Your task to perform on an android device: Open Google Chrome and click the shortcut for Amazon.com Image 0: 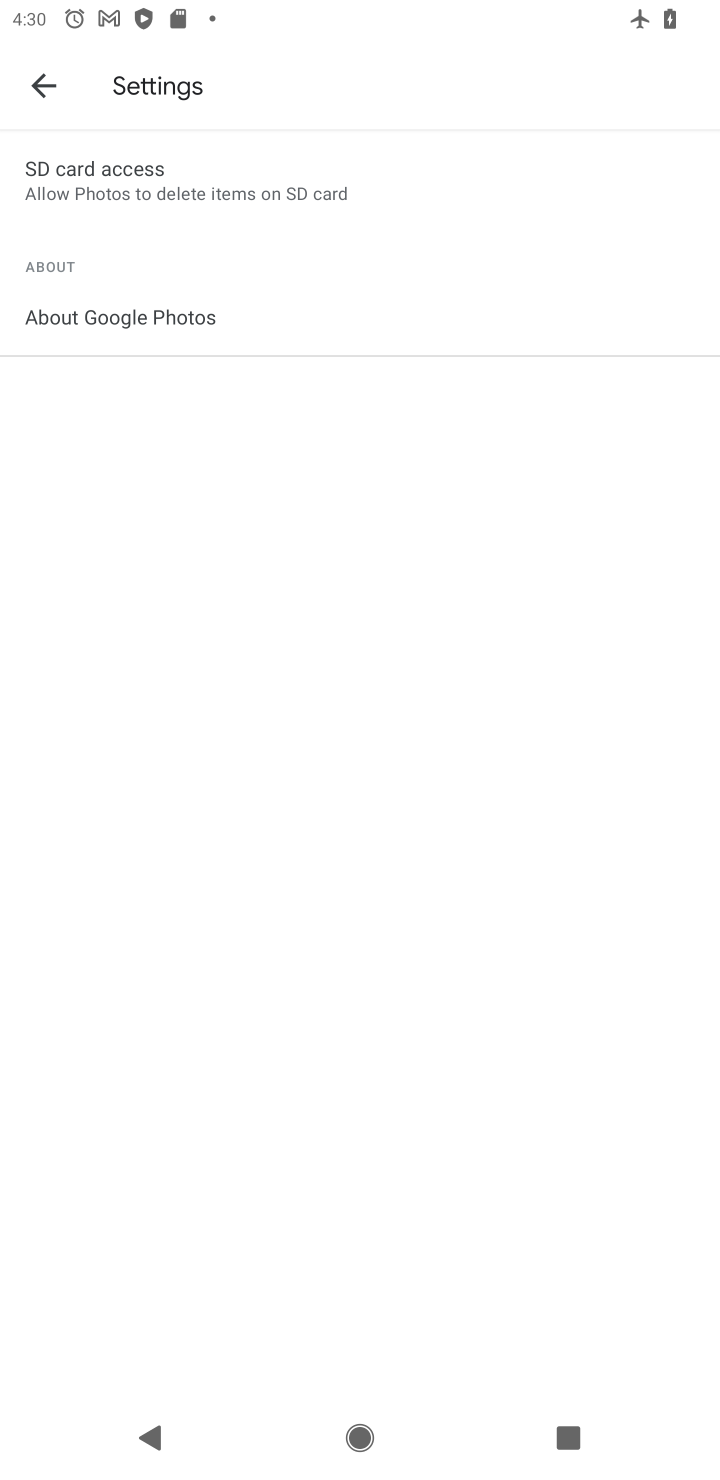
Step 0: press home button
Your task to perform on an android device: Open Google Chrome and click the shortcut for Amazon.com Image 1: 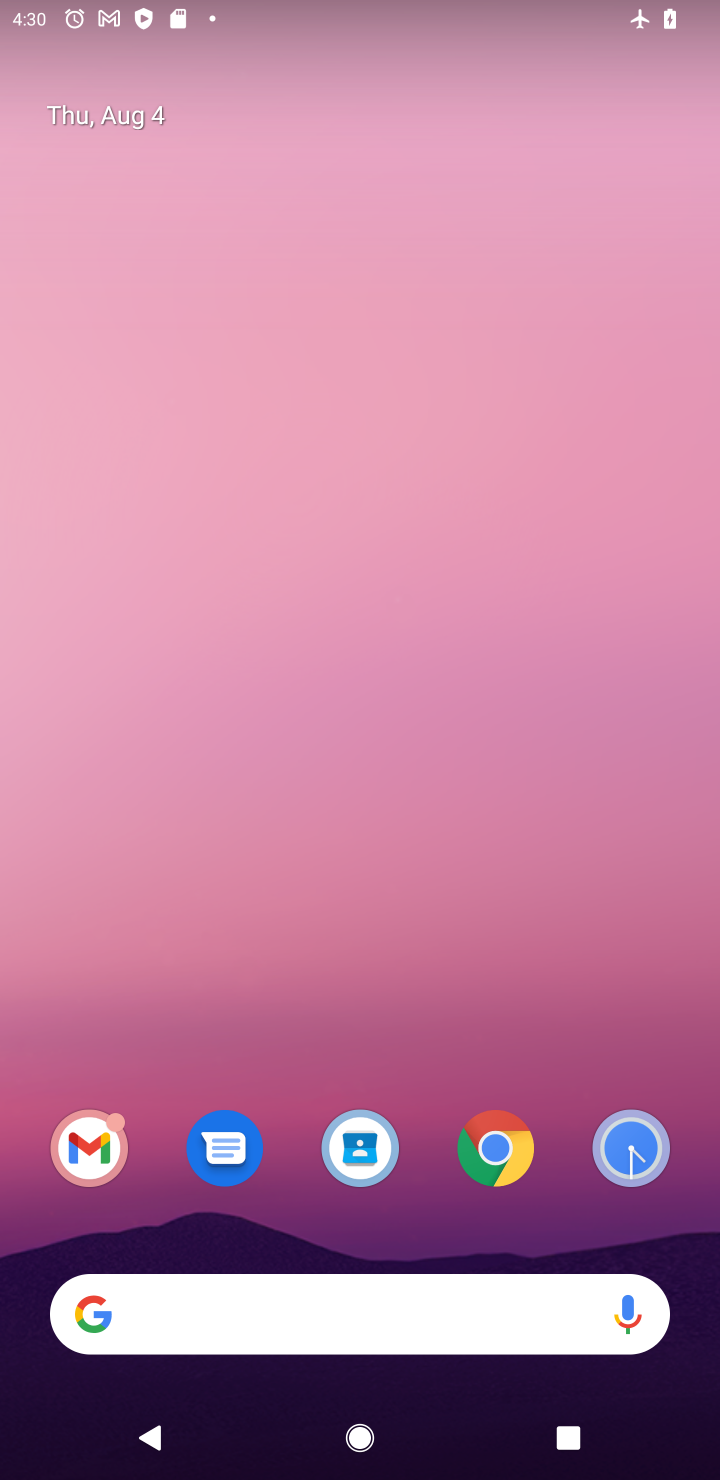
Step 1: click (492, 1146)
Your task to perform on an android device: Open Google Chrome and click the shortcut for Amazon.com Image 2: 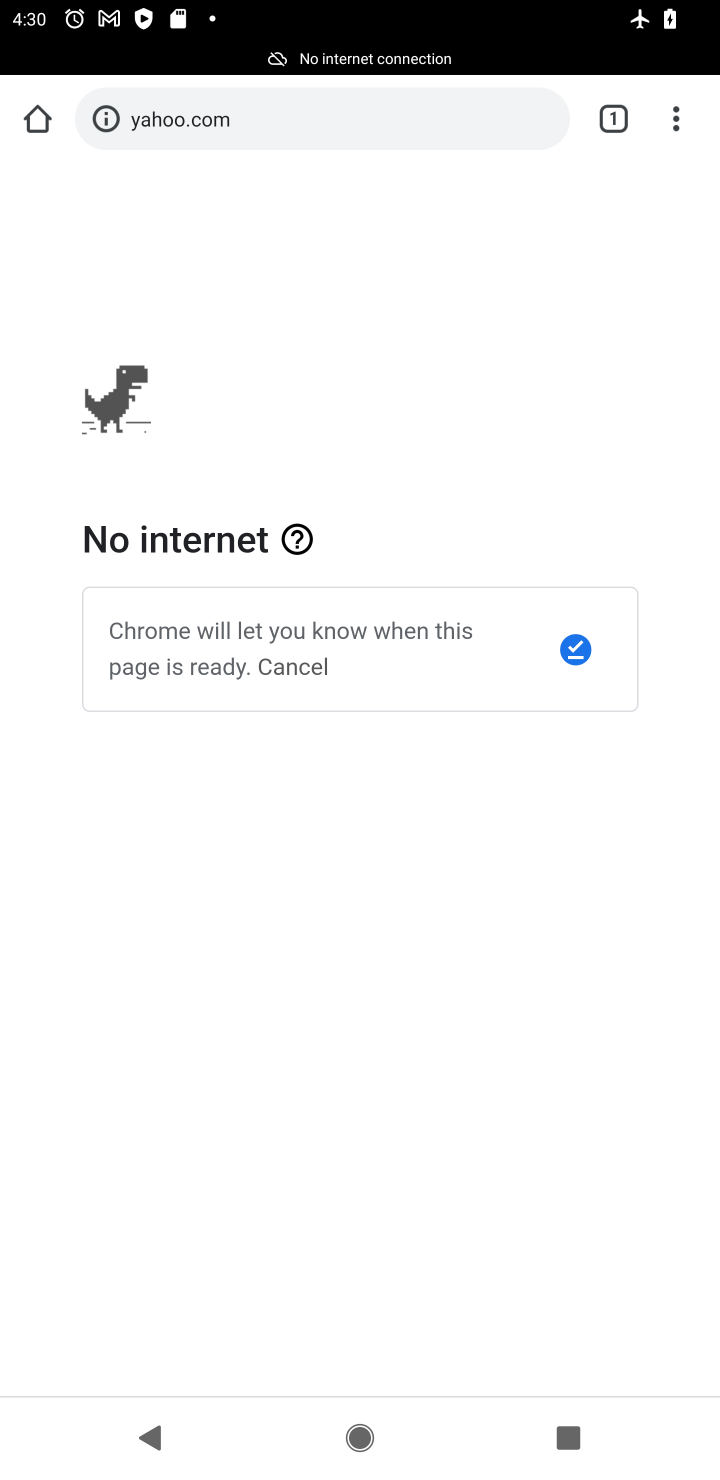
Step 2: click (675, 122)
Your task to perform on an android device: Open Google Chrome and click the shortcut for Amazon.com Image 3: 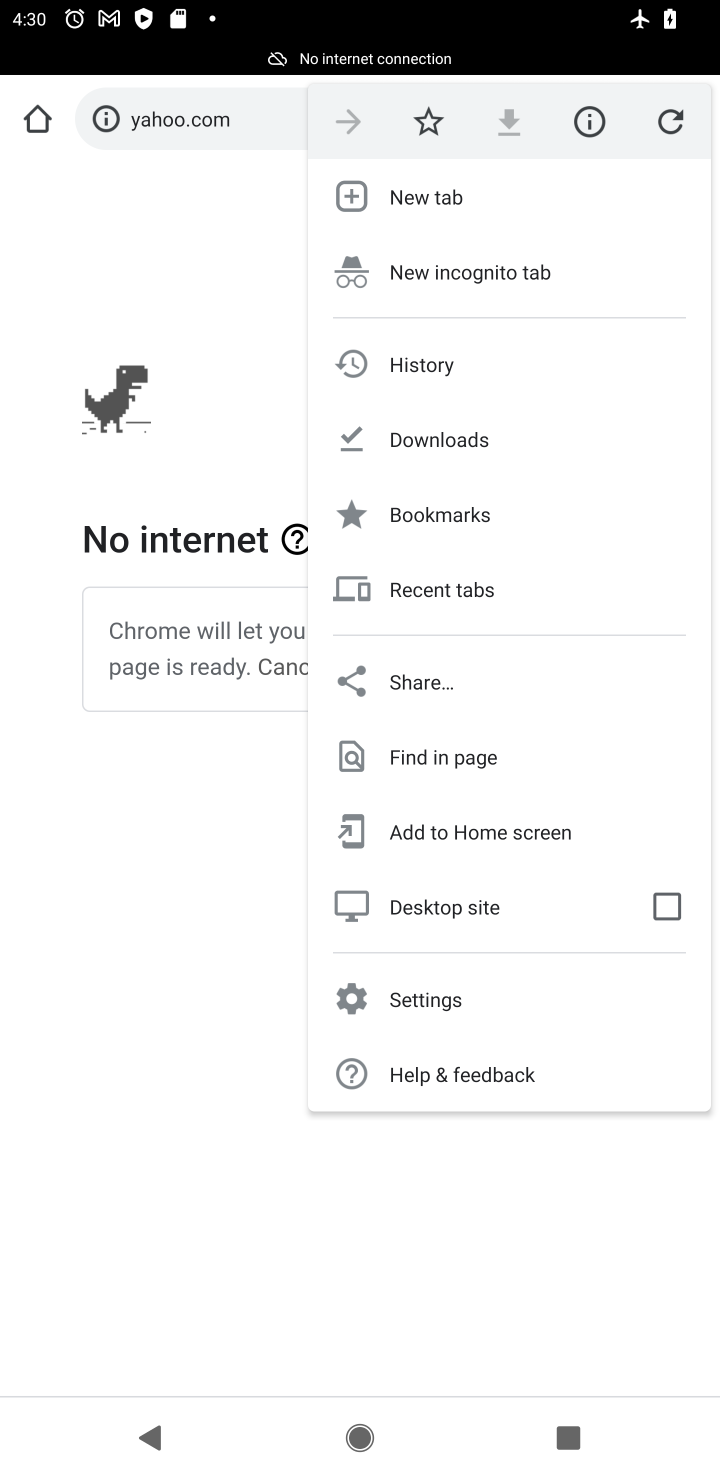
Step 3: click (412, 192)
Your task to perform on an android device: Open Google Chrome and click the shortcut for Amazon.com Image 4: 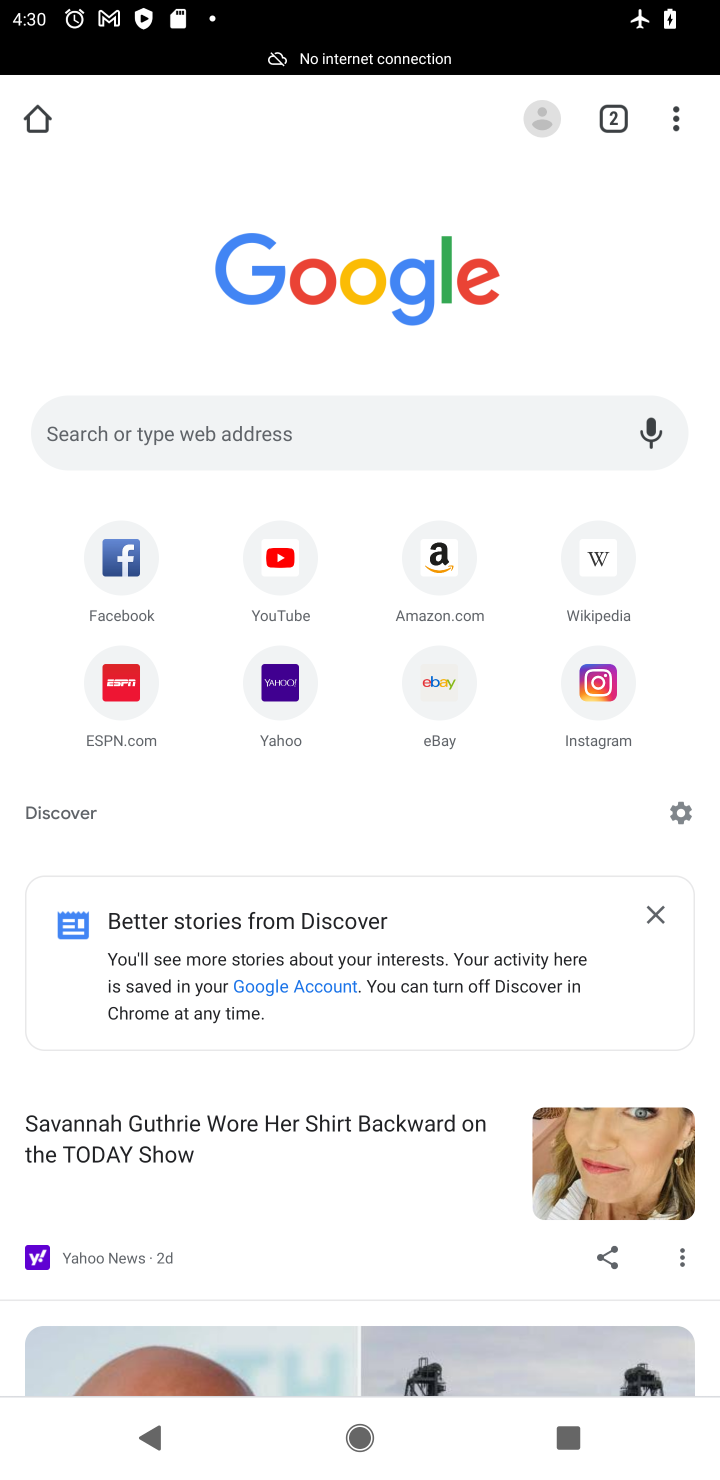
Step 4: click (433, 555)
Your task to perform on an android device: Open Google Chrome and click the shortcut for Amazon.com Image 5: 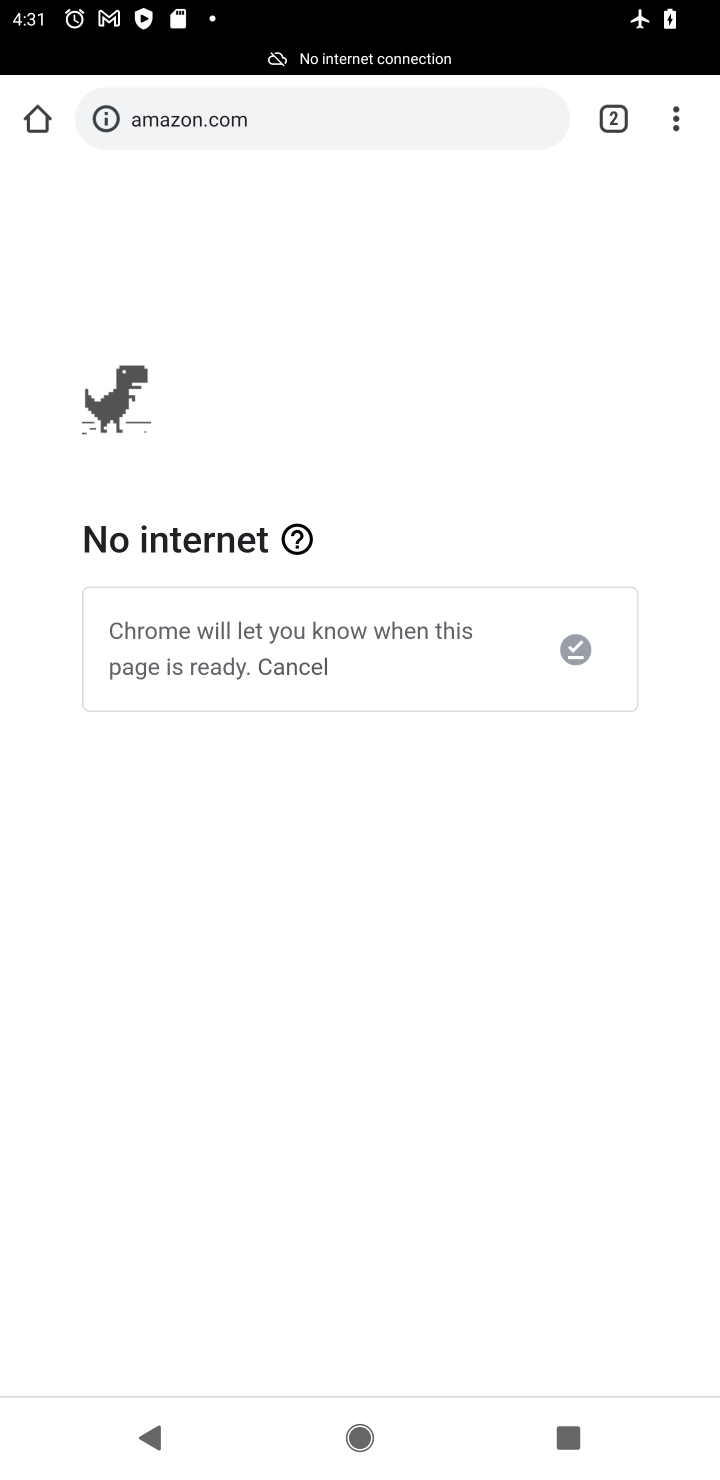
Step 5: task complete